Your task to perform on an android device: Go to sound settings Image 0: 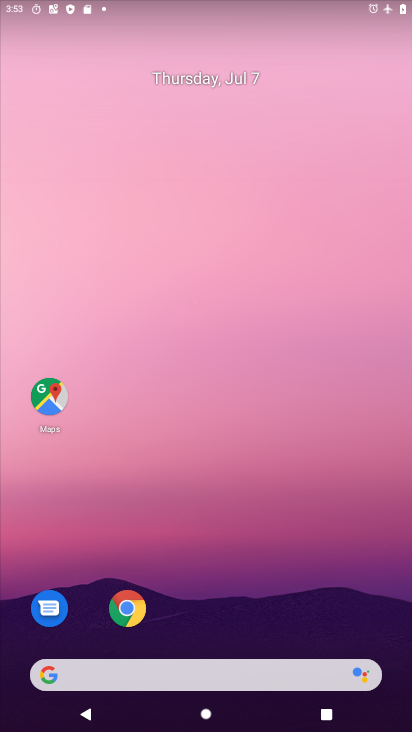
Step 0: drag from (263, 708) to (257, 163)
Your task to perform on an android device: Go to sound settings Image 1: 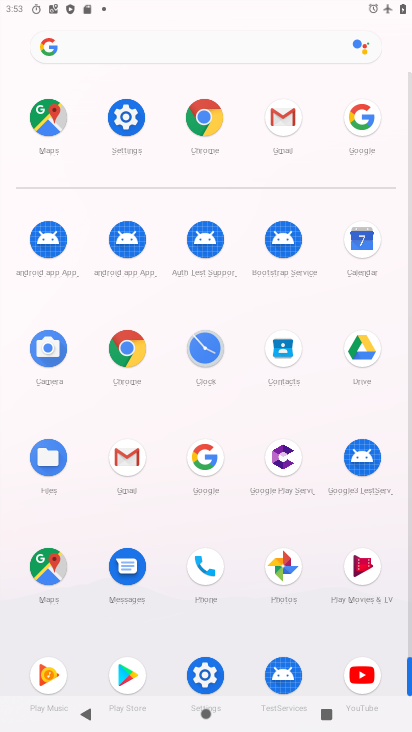
Step 1: click (124, 117)
Your task to perform on an android device: Go to sound settings Image 2: 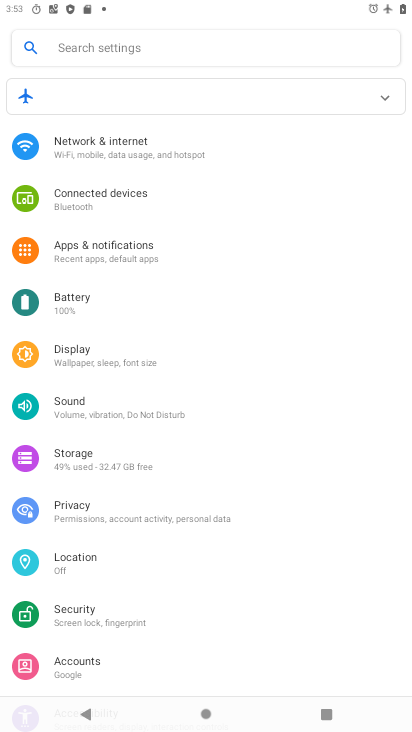
Step 2: click (71, 410)
Your task to perform on an android device: Go to sound settings Image 3: 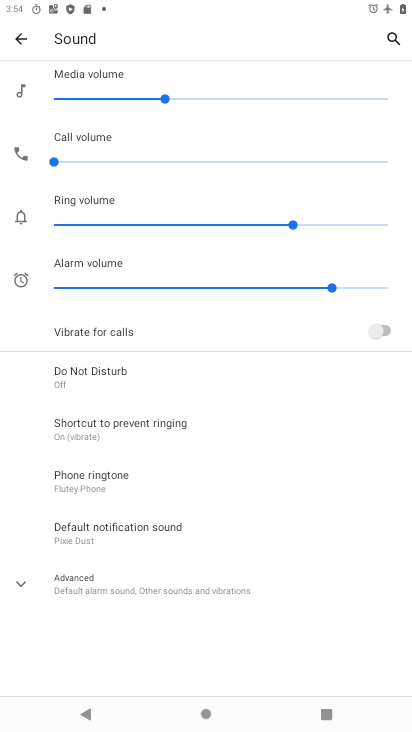
Step 3: task complete